Your task to perform on an android device: Open the map Image 0: 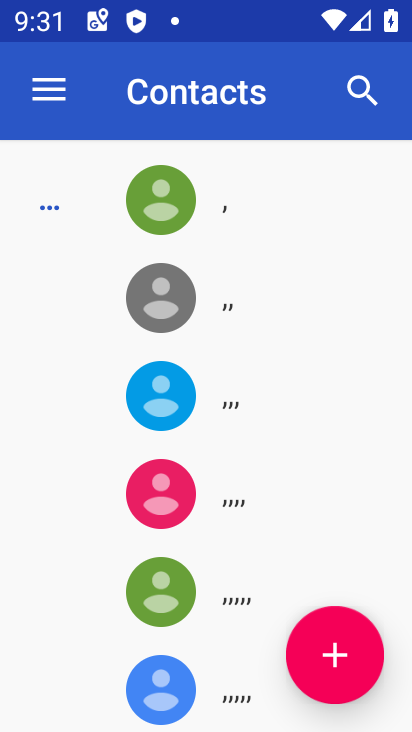
Step 0: press home button
Your task to perform on an android device: Open the map Image 1: 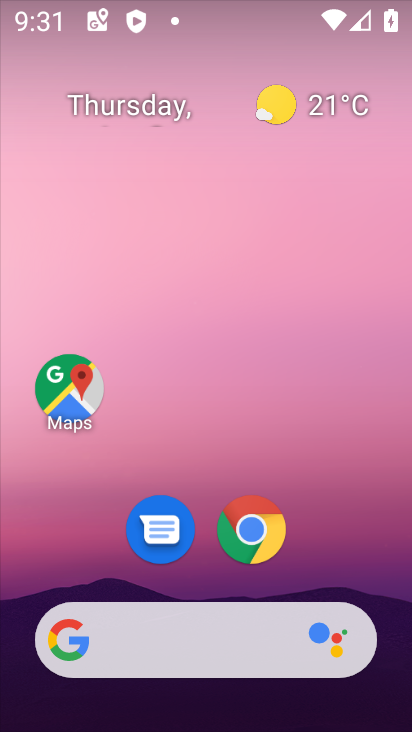
Step 1: click (68, 402)
Your task to perform on an android device: Open the map Image 2: 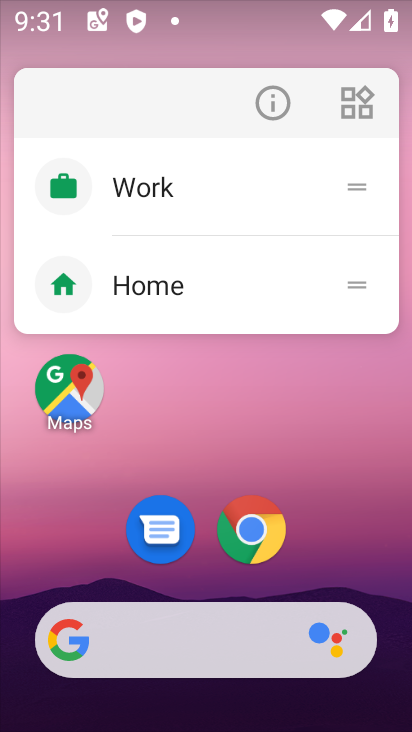
Step 2: click (51, 397)
Your task to perform on an android device: Open the map Image 3: 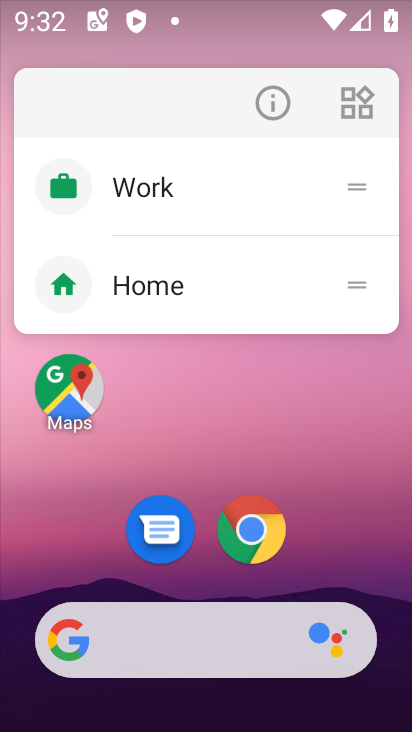
Step 3: click (51, 397)
Your task to perform on an android device: Open the map Image 4: 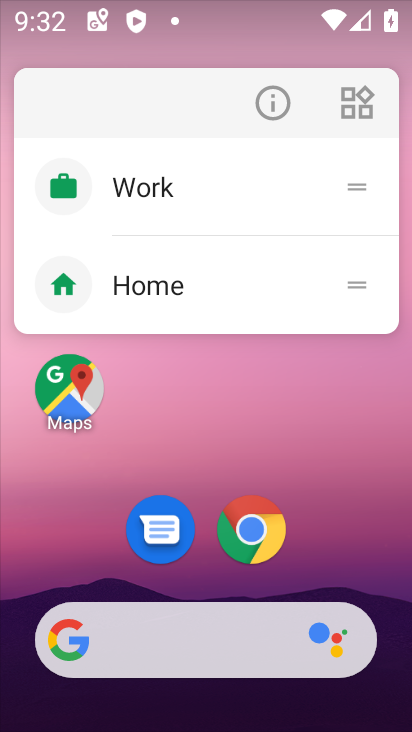
Step 4: click (51, 397)
Your task to perform on an android device: Open the map Image 5: 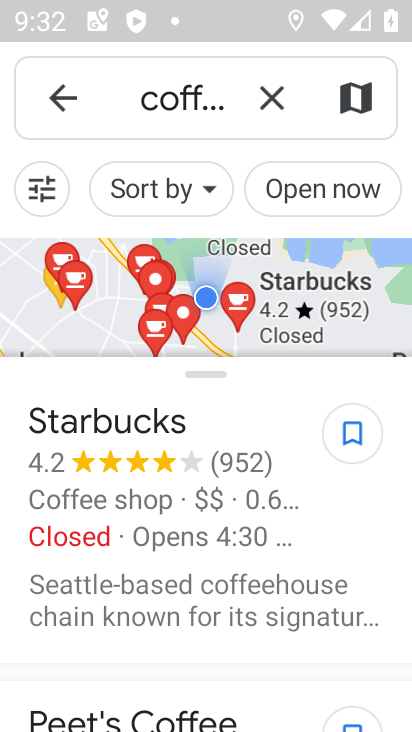
Step 5: task complete